Your task to perform on an android device: Is it going to rain today? Image 0: 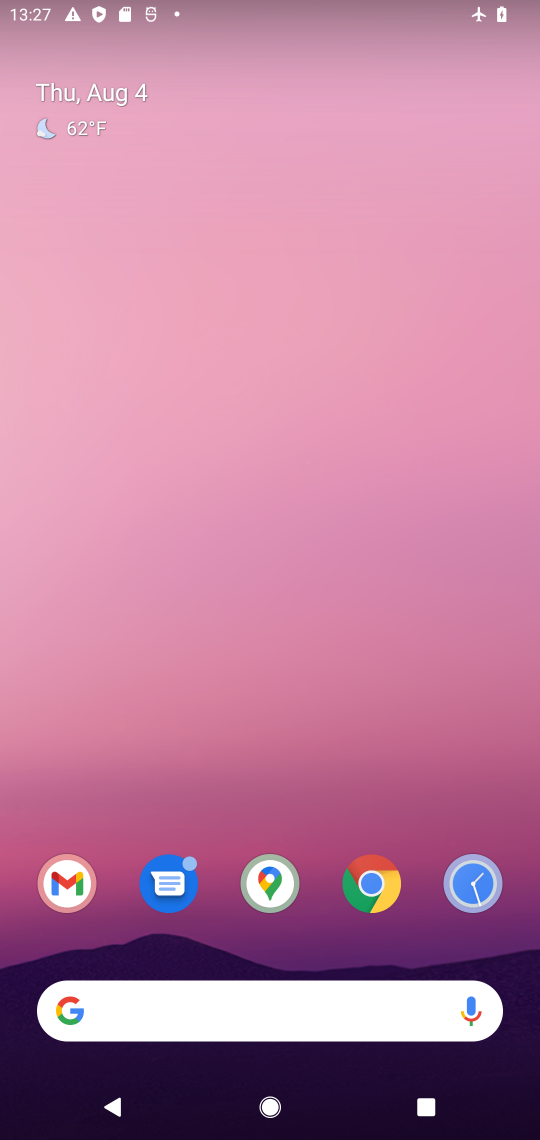
Step 0: drag from (275, 605) to (306, 360)
Your task to perform on an android device: Is it going to rain today? Image 1: 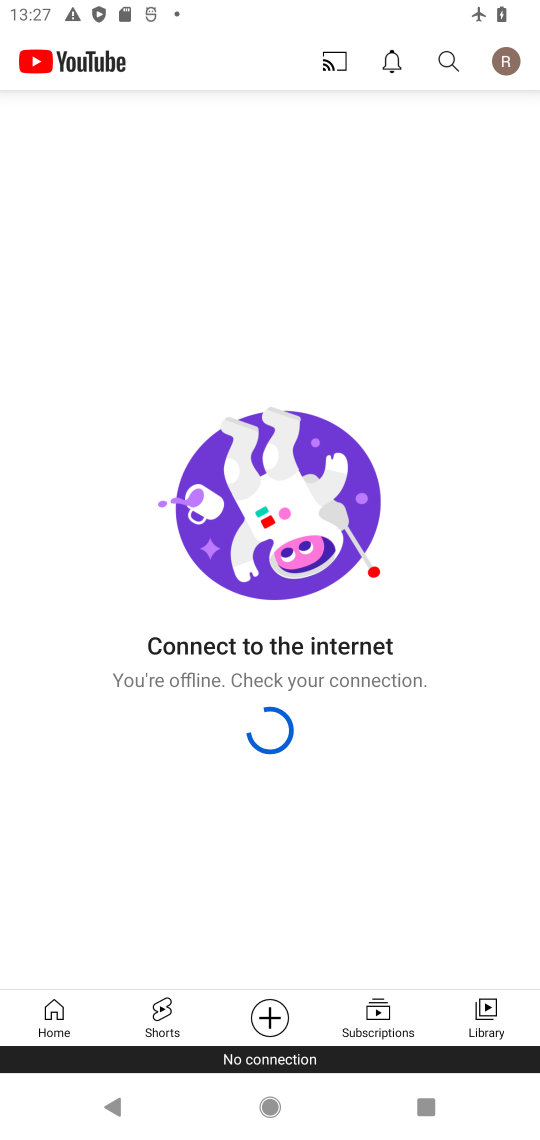
Step 1: press home button
Your task to perform on an android device: Is it going to rain today? Image 2: 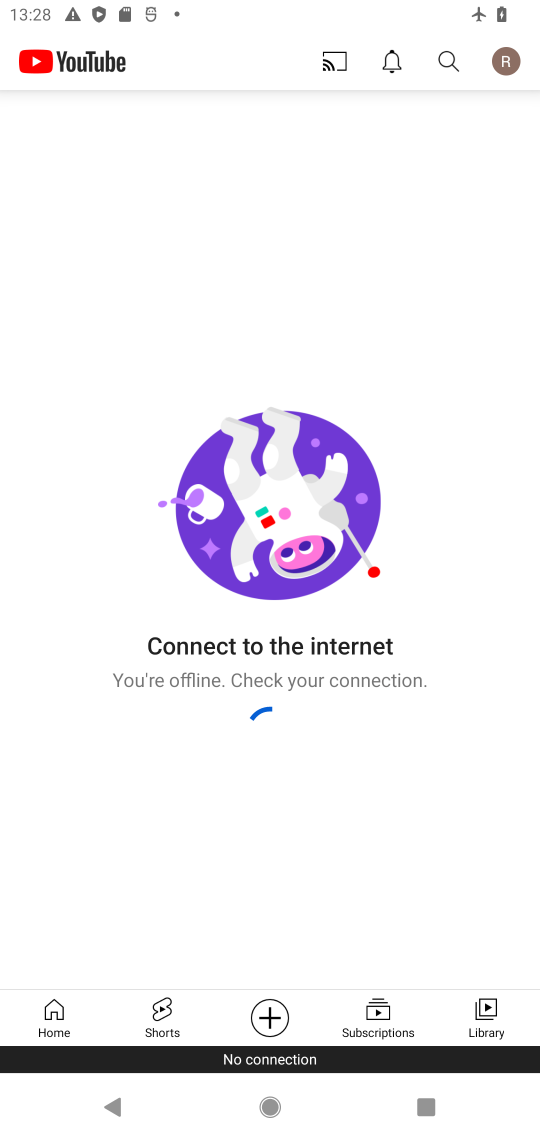
Step 2: drag from (285, 918) to (430, 319)
Your task to perform on an android device: Is it going to rain today? Image 3: 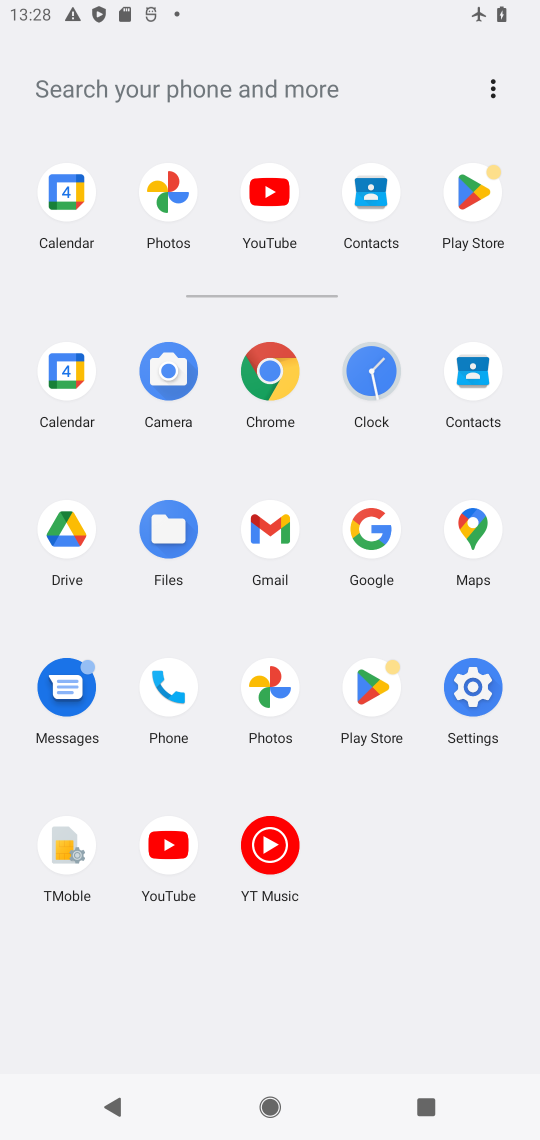
Step 3: click (159, 79)
Your task to perform on an android device: Is it going to rain today? Image 4: 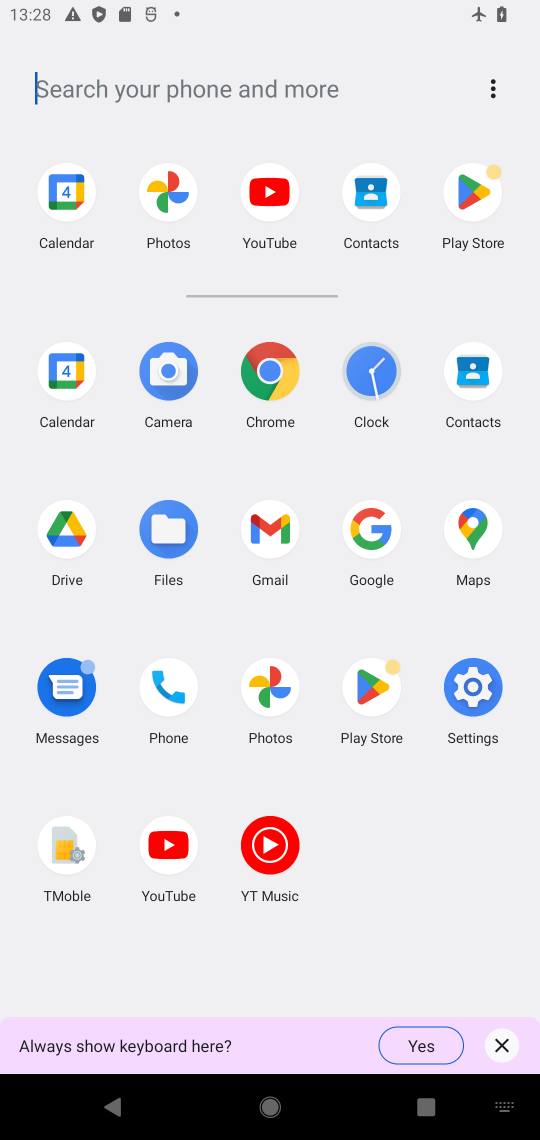
Step 4: type "Is it going to rain today?"
Your task to perform on an android device: Is it going to rain today? Image 5: 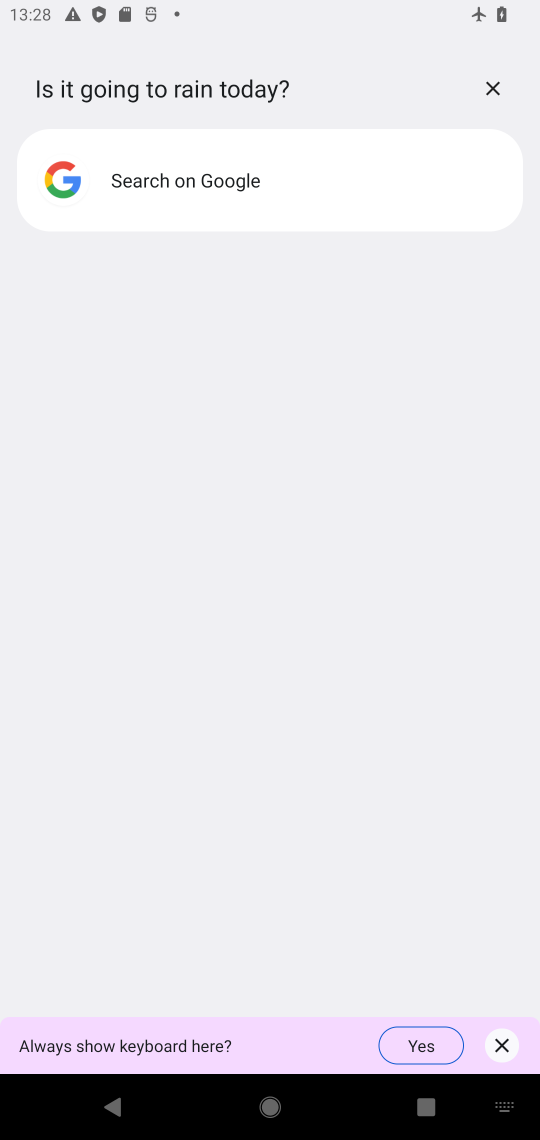
Step 5: click (147, 191)
Your task to perform on an android device: Is it going to rain today? Image 6: 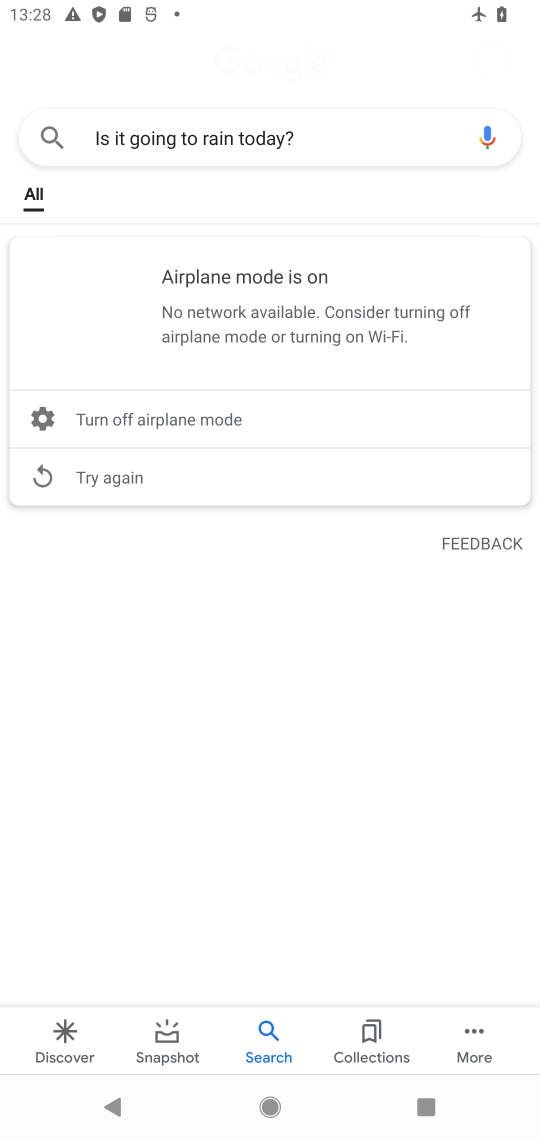
Step 6: task complete